Your task to perform on an android device: delete the emails in spam in the gmail app Image 0: 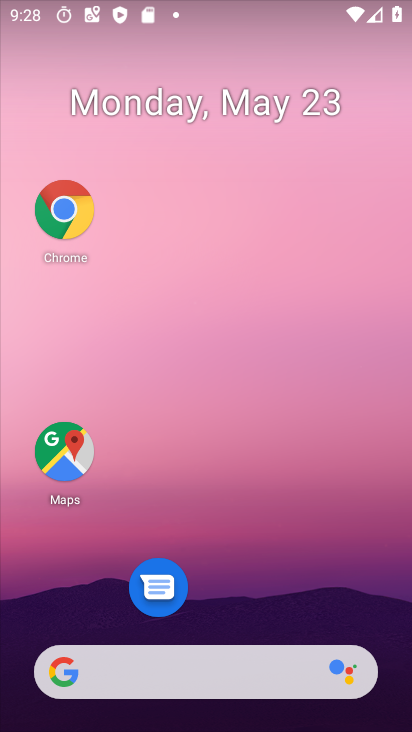
Step 0: click (190, 536)
Your task to perform on an android device: delete the emails in spam in the gmail app Image 1: 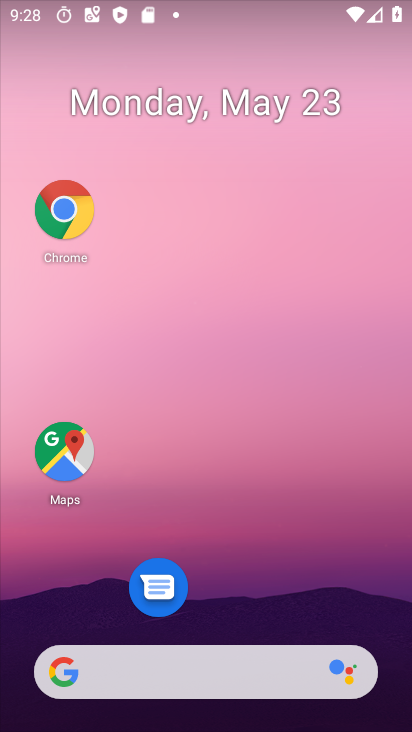
Step 1: drag from (235, 595) to (75, 54)
Your task to perform on an android device: delete the emails in spam in the gmail app Image 2: 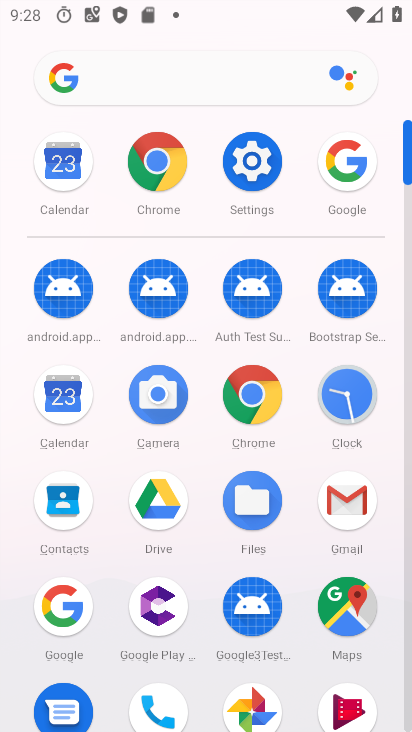
Step 2: click (352, 484)
Your task to perform on an android device: delete the emails in spam in the gmail app Image 3: 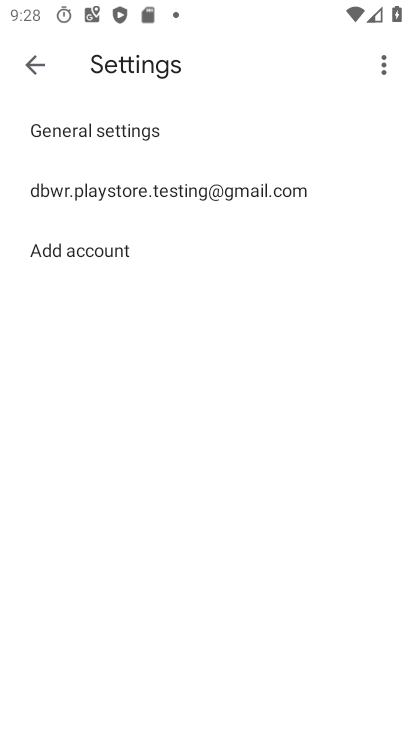
Step 3: click (146, 186)
Your task to perform on an android device: delete the emails in spam in the gmail app Image 4: 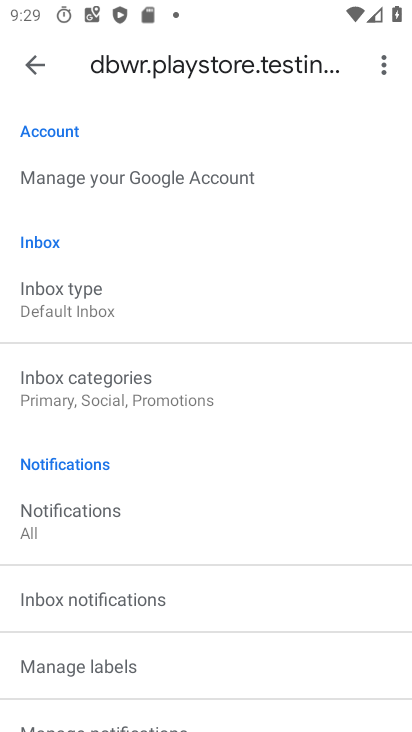
Step 4: click (32, 63)
Your task to perform on an android device: delete the emails in spam in the gmail app Image 5: 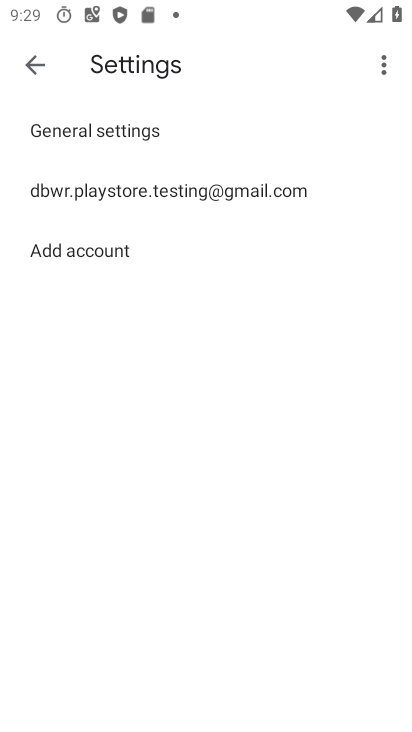
Step 5: click (32, 63)
Your task to perform on an android device: delete the emails in spam in the gmail app Image 6: 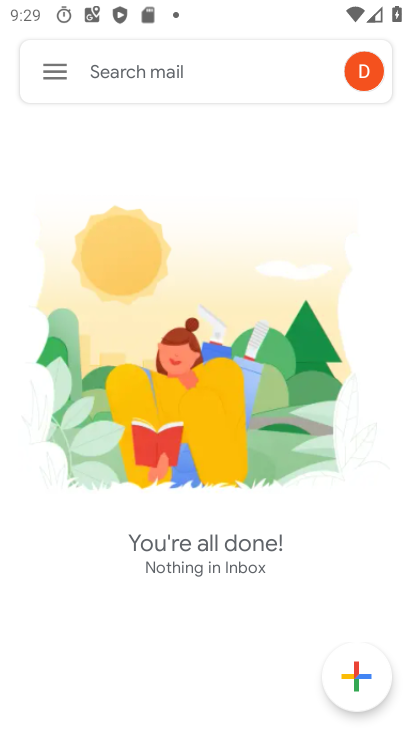
Step 6: click (32, 63)
Your task to perform on an android device: delete the emails in spam in the gmail app Image 7: 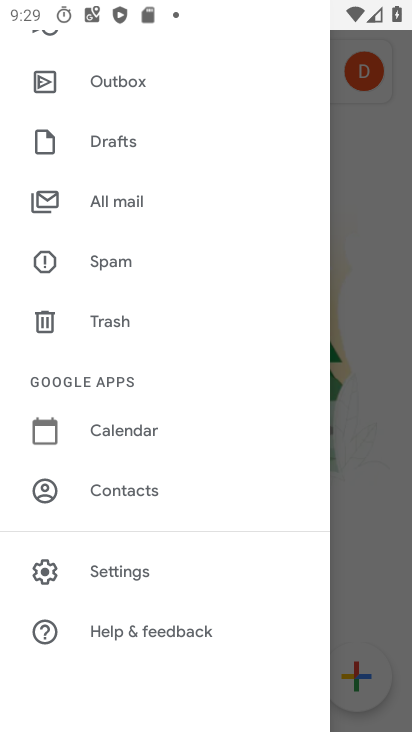
Step 7: click (105, 264)
Your task to perform on an android device: delete the emails in spam in the gmail app Image 8: 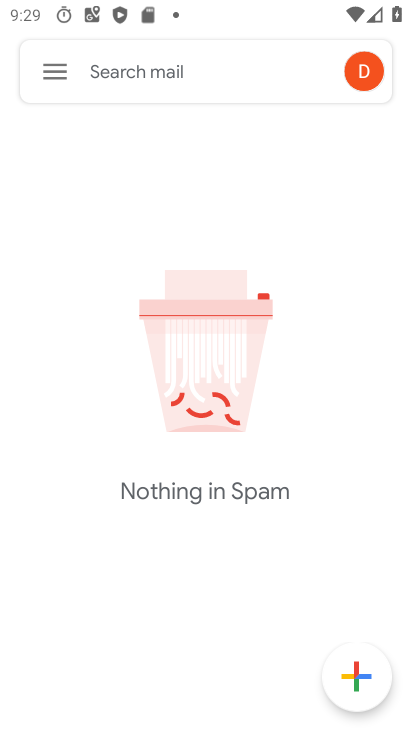
Step 8: task complete